Your task to perform on an android device: change the clock display to analog Image 0: 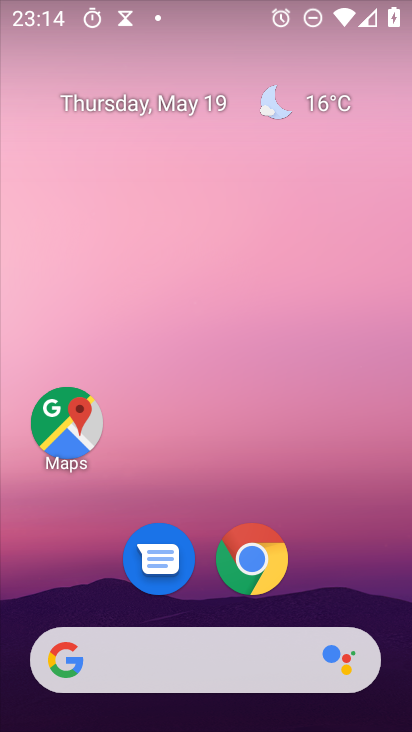
Step 0: drag from (231, 721) to (231, 154)
Your task to perform on an android device: change the clock display to analog Image 1: 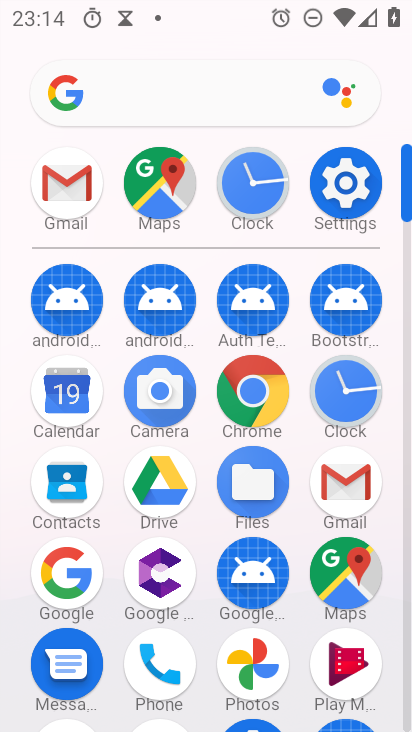
Step 1: click (338, 397)
Your task to perform on an android device: change the clock display to analog Image 2: 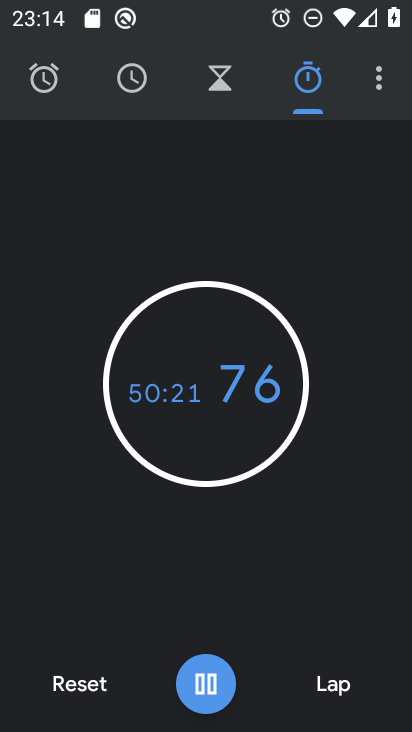
Step 2: click (381, 89)
Your task to perform on an android device: change the clock display to analog Image 3: 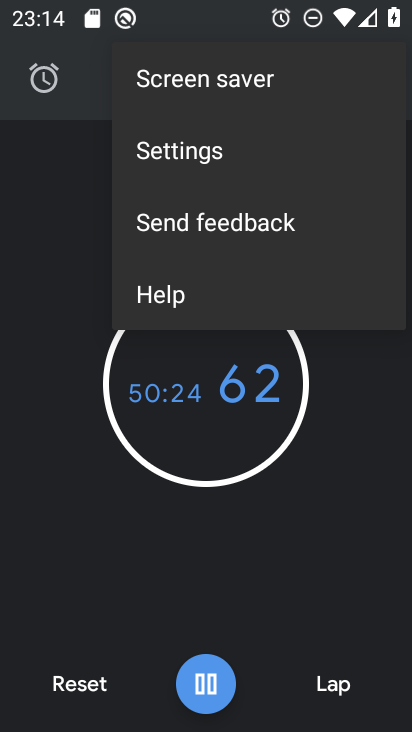
Step 3: click (189, 147)
Your task to perform on an android device: change the clock display to analog Image 4: 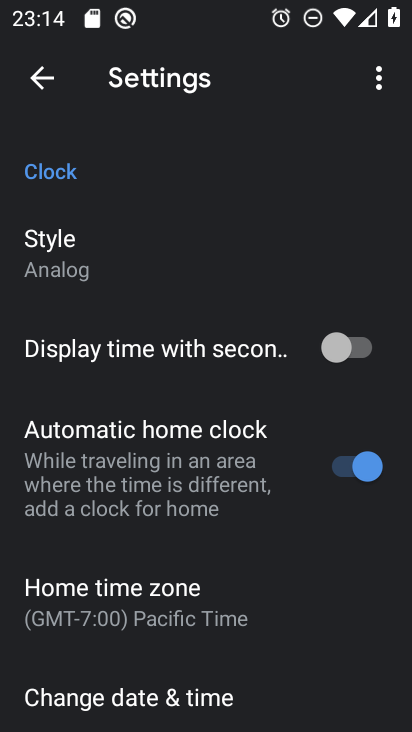
Step 4: task complete